Your task to perform on an android device: Open the Play Movies app and select the watchlist tab. Image 0: 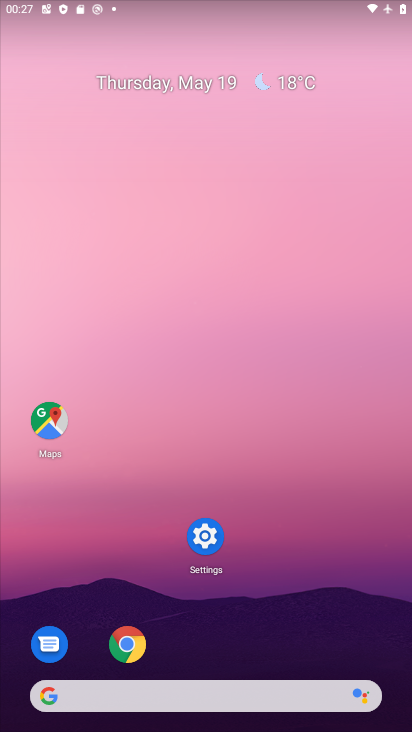
Step 0: drag from (302, 625) to (283, 114)
Your task to perform on an android device: Open the Play Movies app and select the watchlist tab. Image 1: 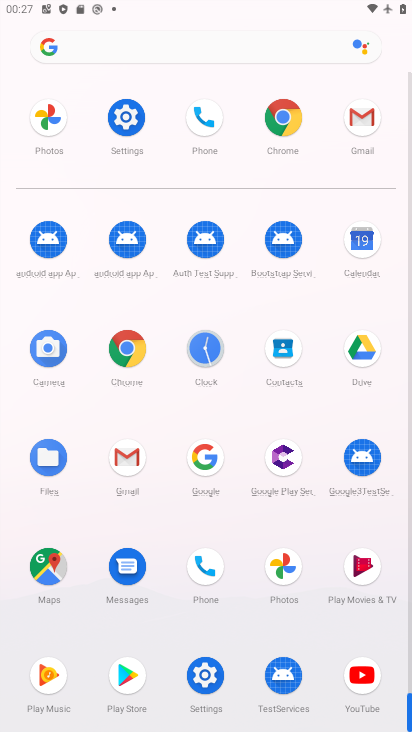
Step 1: click (360, 564)
Your task to perform on an android device: Open the Play Movies app and select the watchlist tab. Image 2: 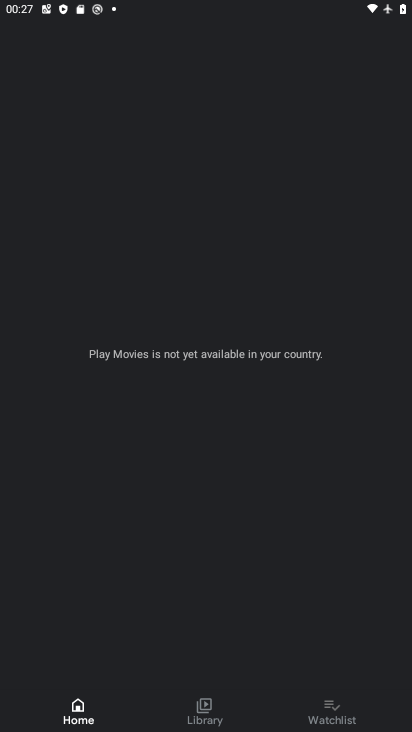
Step 2: click (332, 700)
Your task to perform on an android device: Open the Play Movies app and select the watchlist tab. Image 3: 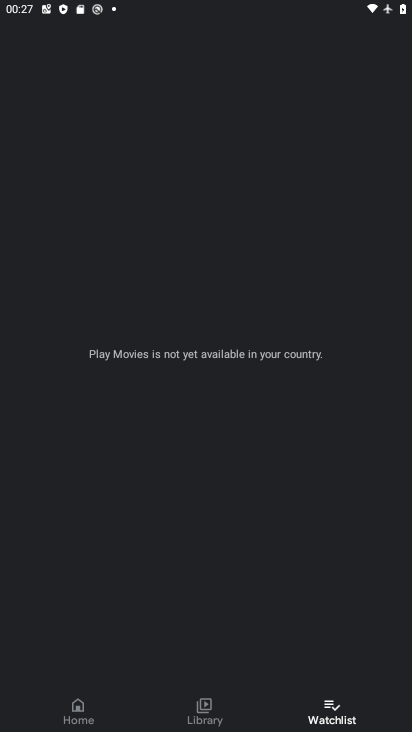
Step 3: task complete